Your task to perform on an android device: Open Google Maps Image 0: 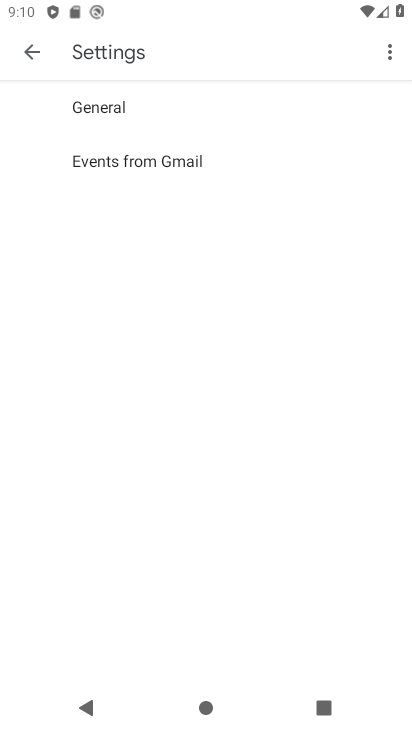
Step 0: press home button
Your task to perform on an android device: Open Google Maps Image 1: 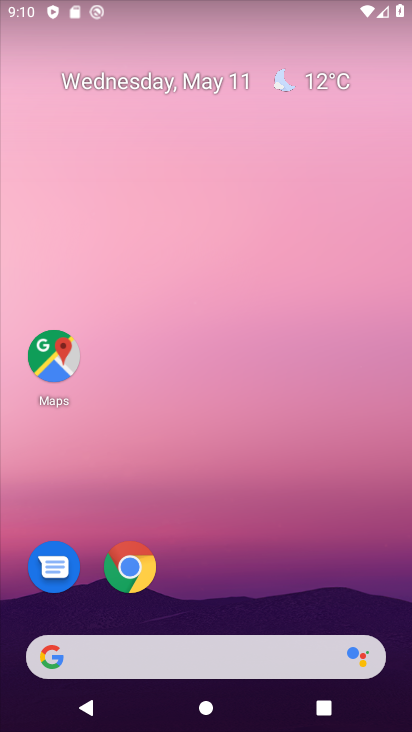
Step 1: click (55, 355)
Your task to perform on an android device: Open Google Maps Image 2: 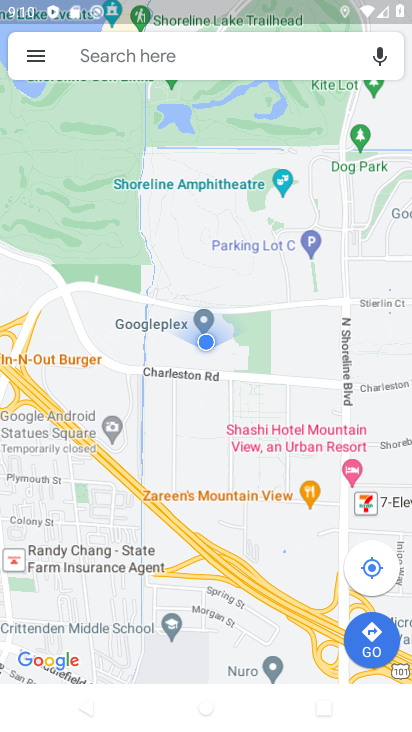
Step 2: task complete